Your task to perform on an android device: Open maps Image 0: 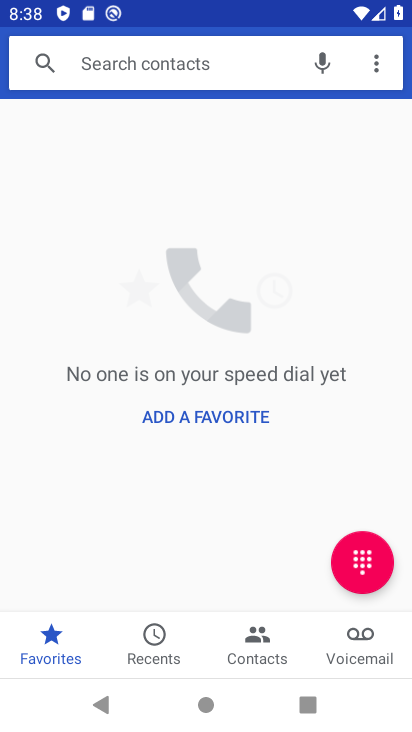
Step 0: press home button
Your task to perform on an android device: Open maps Image 1: 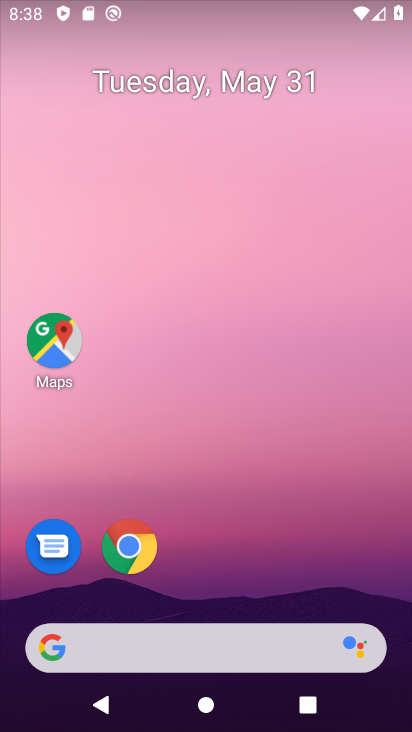
Step 1: click (49, 346)
Your task to perform on an android device: Open maps Image 2: 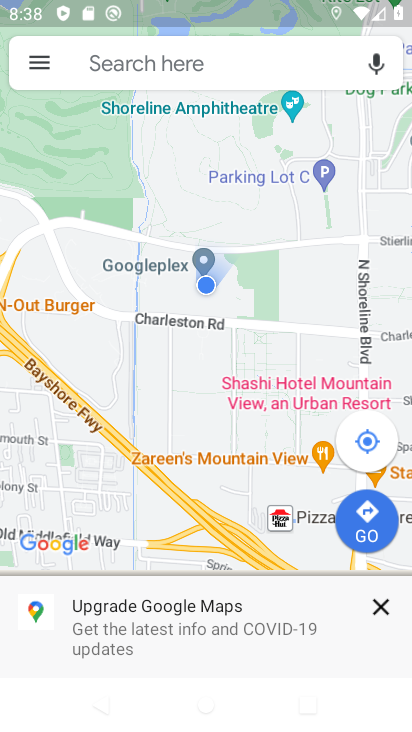
Step 2: task complete